Your task to perform on an android device: turn on sleep mode Image 0: 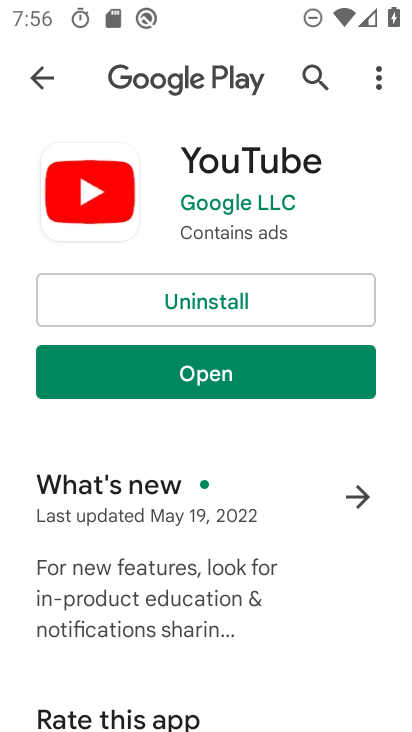
Step 0: press home button
Your task to perform on an android device: turn on sleep mode Image 1: 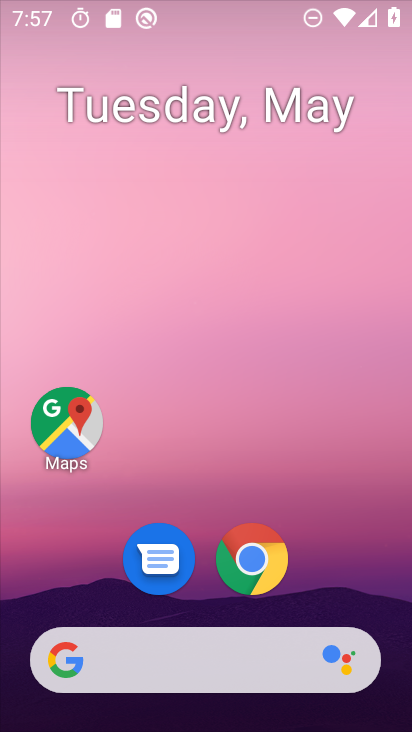
Step 1: drag from (391, 645) to (293, 19)
Your task to perform on an android device: turn on sleep mode Image 2: 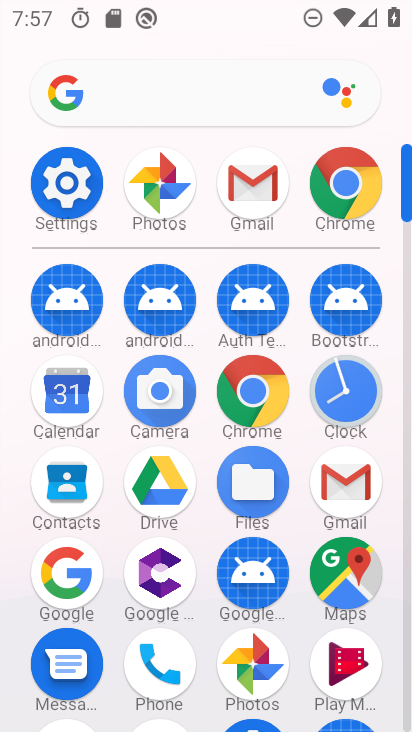
Step 2: click (75, 184)
Your task to perform on an android device: turn on sleep mode Image 3: 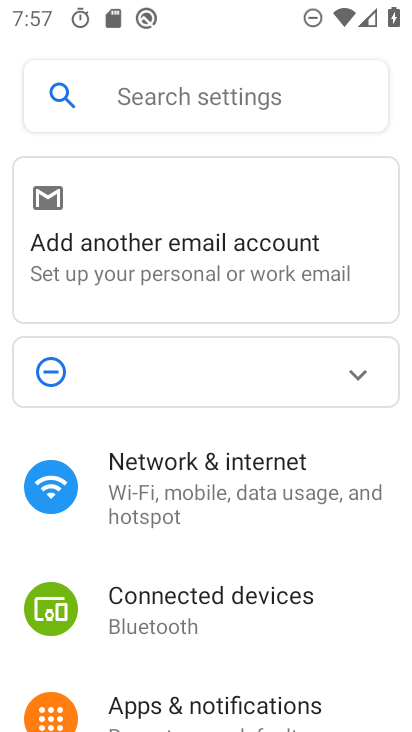
Step 3: task complete